Your task to perform on an android device: toggle wifi Image 0: 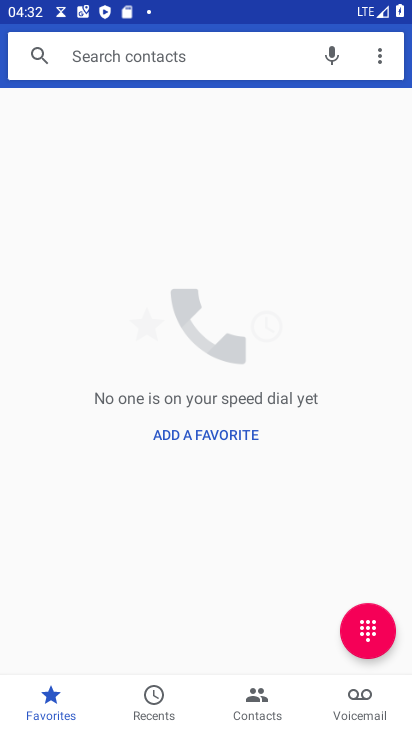
Step 0: press back button
Your task to perform on an android device: toggle wifi Image 1: 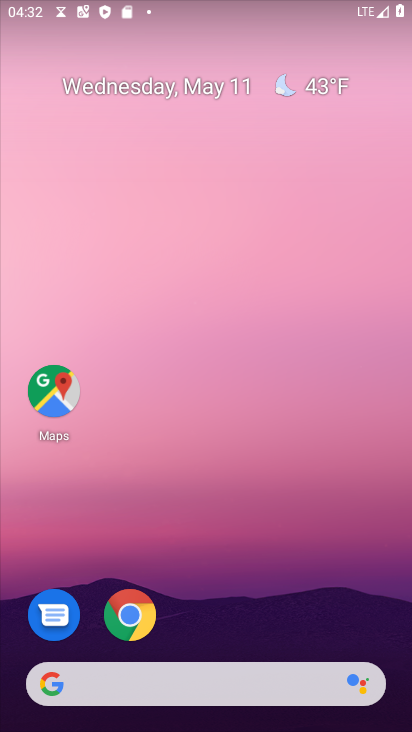
Step 1: drag from (263, 519) to (204, 5)
Your task to perform on an android device: toggle wifi Image 2: 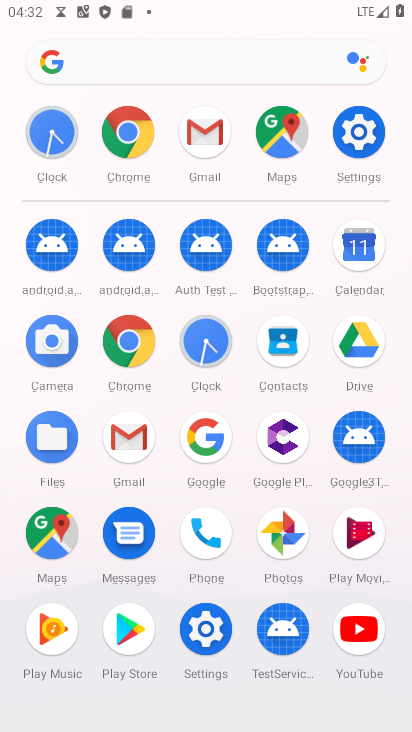
Step 2: click (206, 625)
Your task to perform on an android device: toggle wifi Image 3: 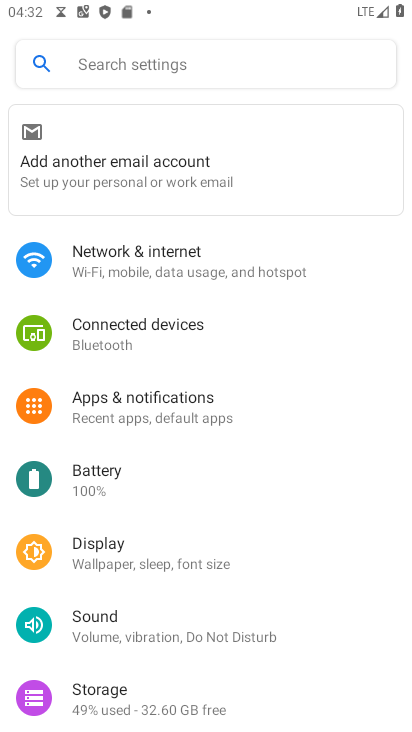
Step 3: click (226, 257)
Your task to perform on an android device: toggle wifi Image 4: 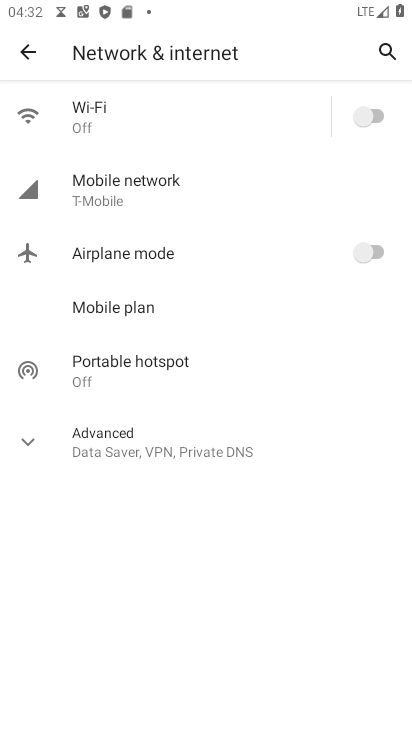
Step 4: click (364, 114)
Your task to perform on an android device: toggle wifi Image 5: 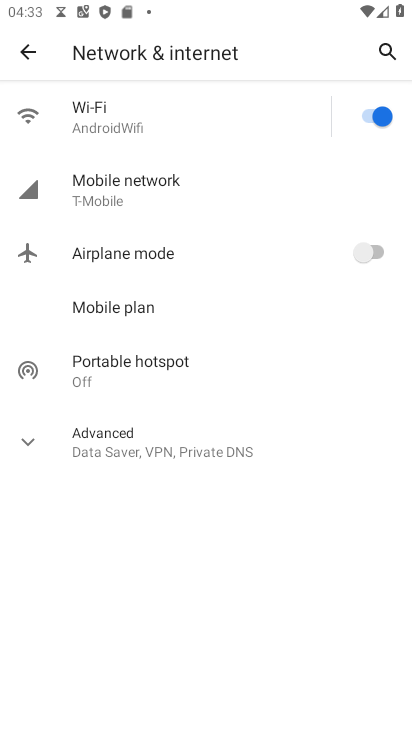
Step 5: task complete